Your task to perform on an android device: Open accessibility settings Image 0: 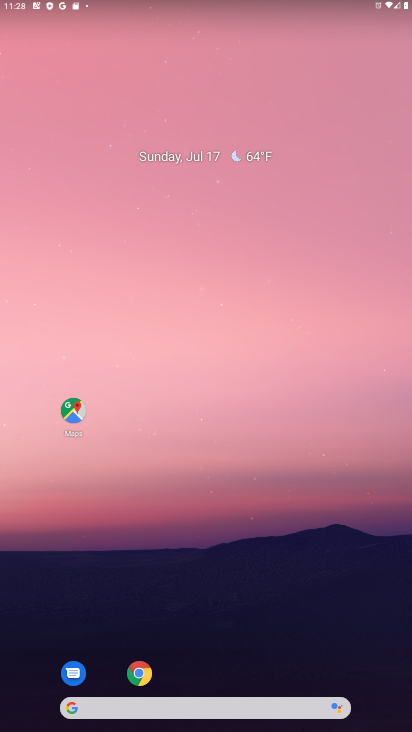
Step 0: drag from (211, 681) to (229, 55)
Your task to perform on an android device: Open accessibility settings Image 1: 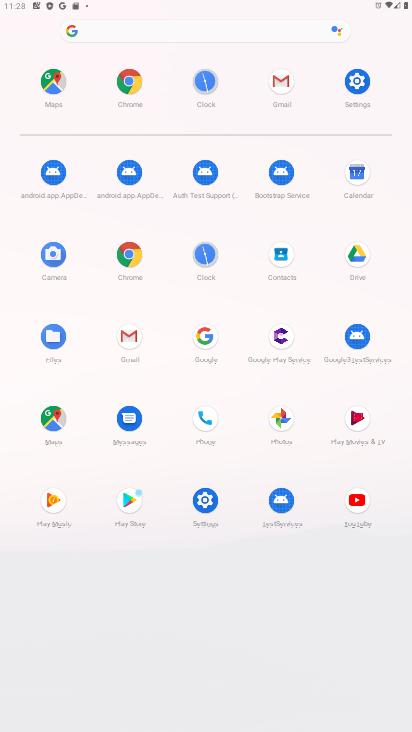
Step 1: click (359, 77)
Your task to perform on an android device: Open accessibility settings Image 2: 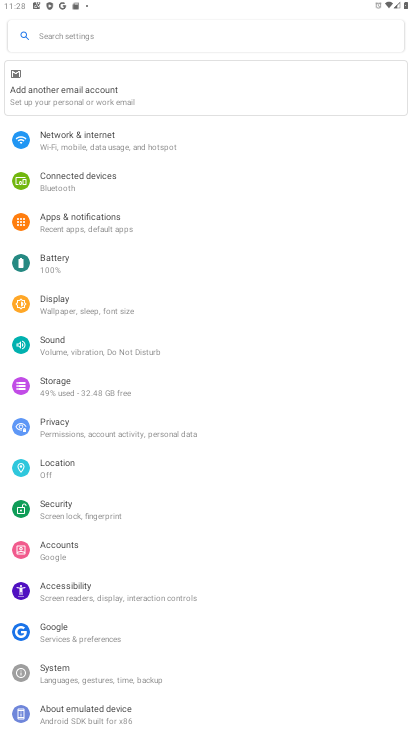
Step 2: click (72, 587)
Your task to perform on an android device: Open accessibility settings Image 3: 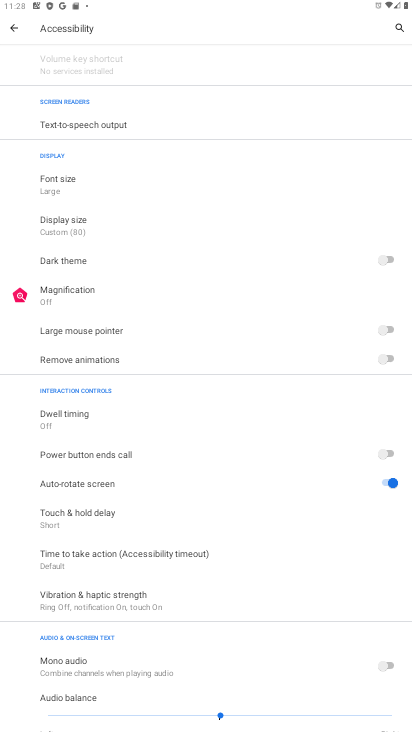
Step 3: task complete